Your task to perform on an android device: check out phone information Image 0: 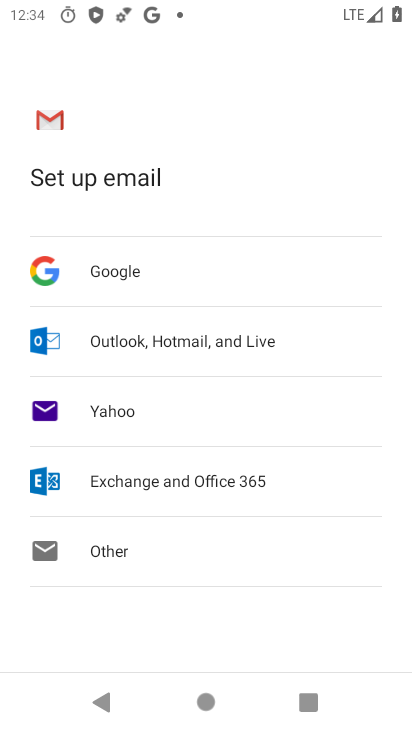
Step 0: click (106, 702)
Your task to perform on an android device: check out phone information Image 1: 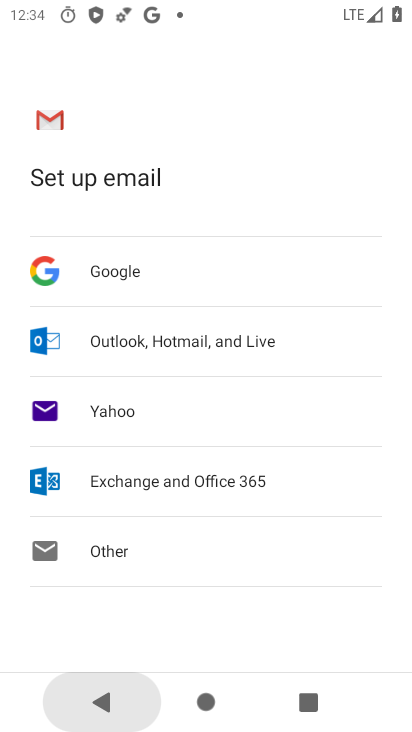
Step 1: click (106, 702)
Your task to perform on an android device: check out phone information Image 2: 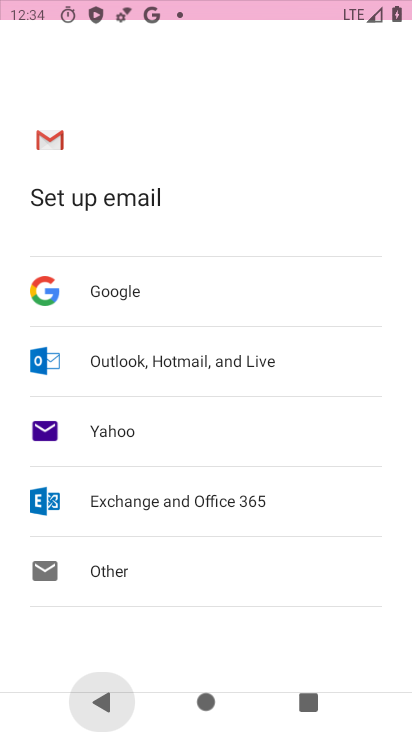
Step 2: click (106, 702)
Your task to perform on an android device: check out phone information Image 3: 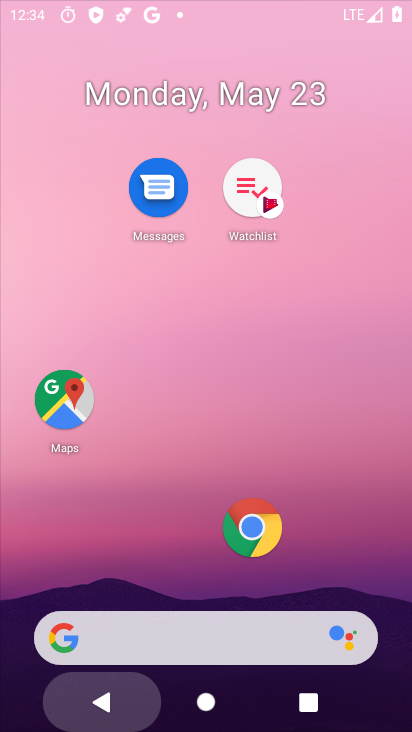
Step 3: click (104, 702)
Your task to perform on an android device: check out phone information Image 4: 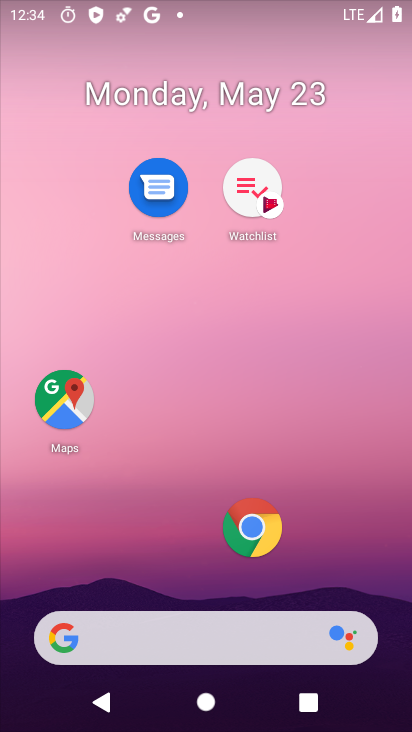
Step 4: press back button
Your task to perform on an android device: check out phone information Image 5: 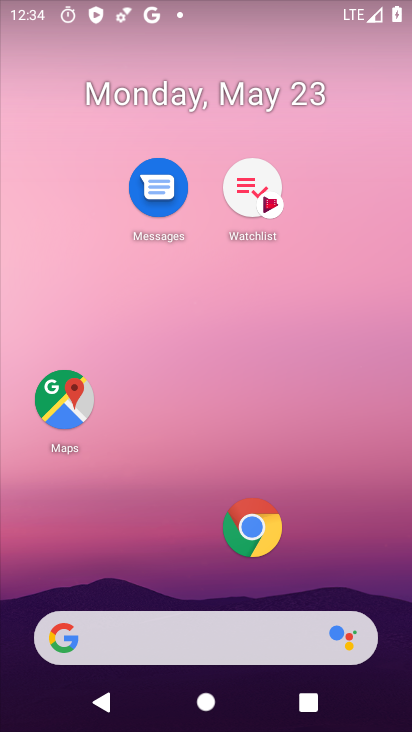
Step 5: press back button
Your task to perform on an android device: check out phone information Image 6: 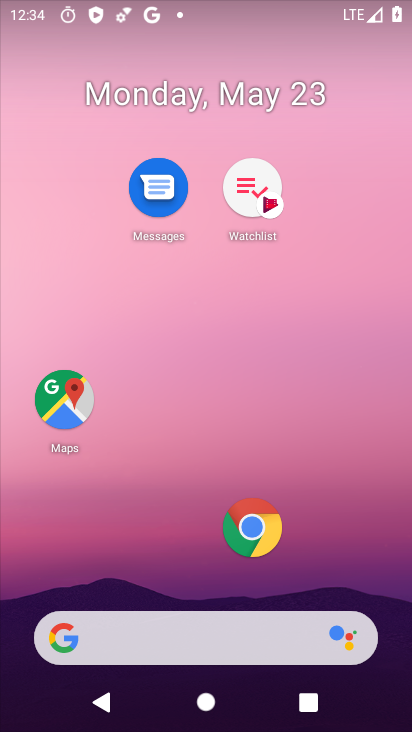
Step 6: drag from (309, 602) to (128, 97)
Your task to perform on an android device: check out phone information Image 7: 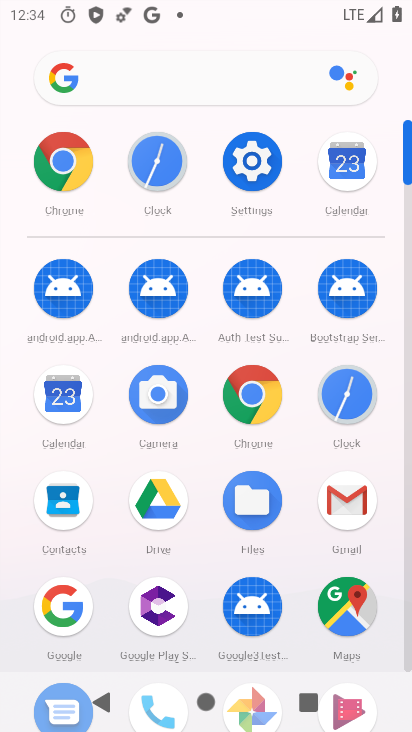
Step 7: drag from (230, 532) to (185, 145)
Your task to perform on an android device: check out phone information Image 8: 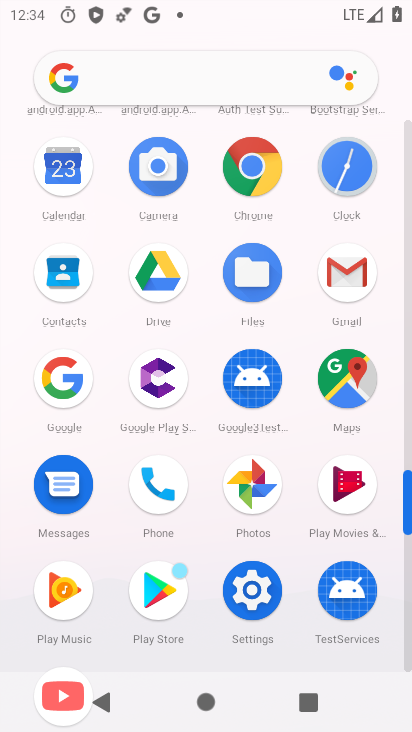
Step 8: drag from (230, 408) to (202, 82)
Your task to perform on an android device: check out phone information Image 9: 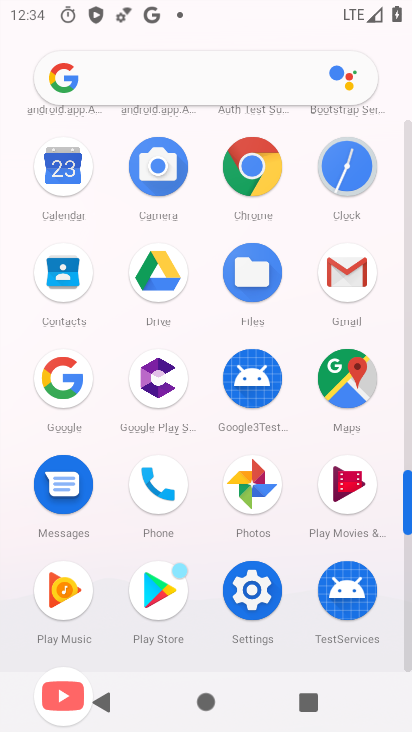
Step 9: click (250, 593)
Your task to perform on an android device: check out phone information Image 10: 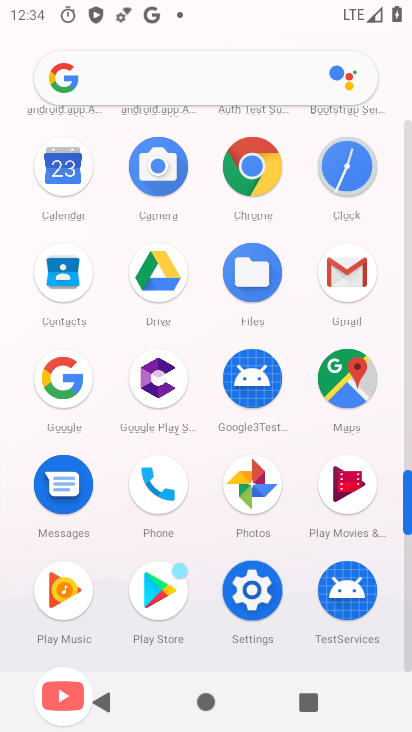
Step 10: click (250, 593)
Your task to perform on an android device: check out phone information Image 11: 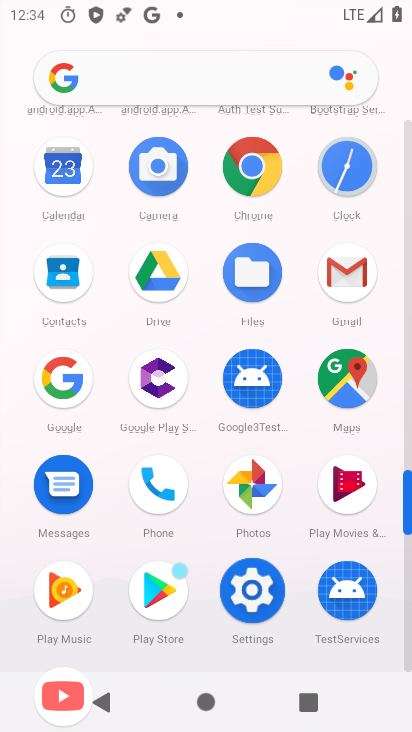
Step 11: click (250, 593)
Your task to perform on an android device: check out phone information Image 12: 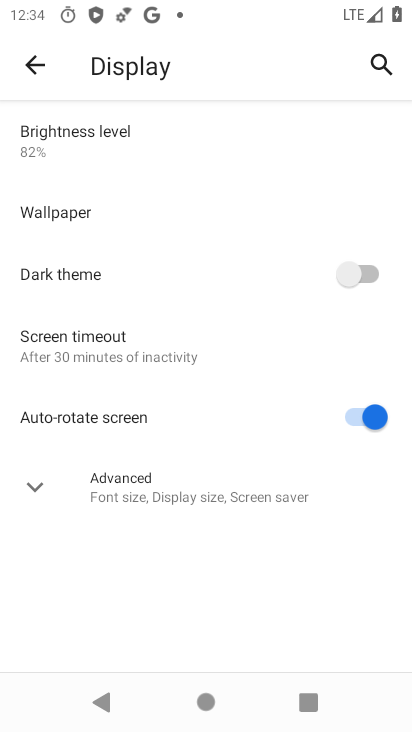
Step 12: drag from (156, 555) to (157, 183)
Your task to perform on an android device: check out phone information Image 13: 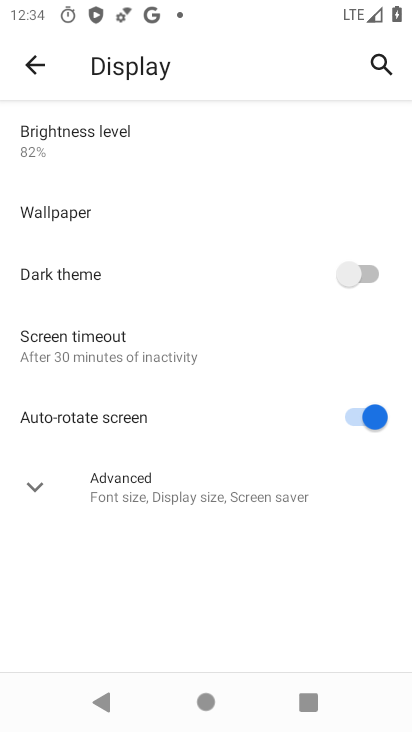
Step 13: click (38, 69)
Your task to perform on an android device: check out phone information Image 14: 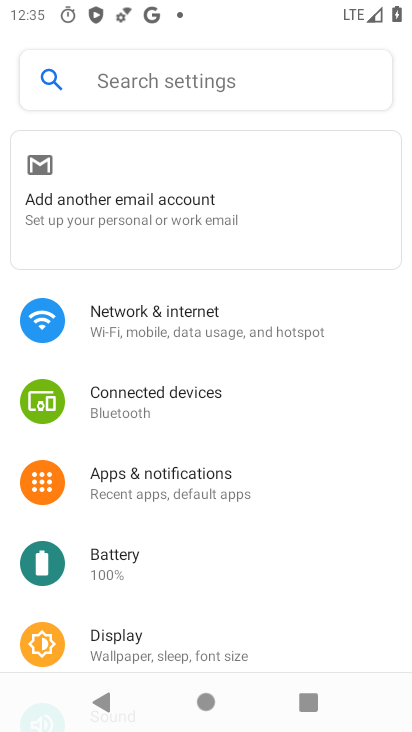
Step 14: drag from (213, 233) to (214, 184)
Your task to perform on an android device: check out phone information Image 15: 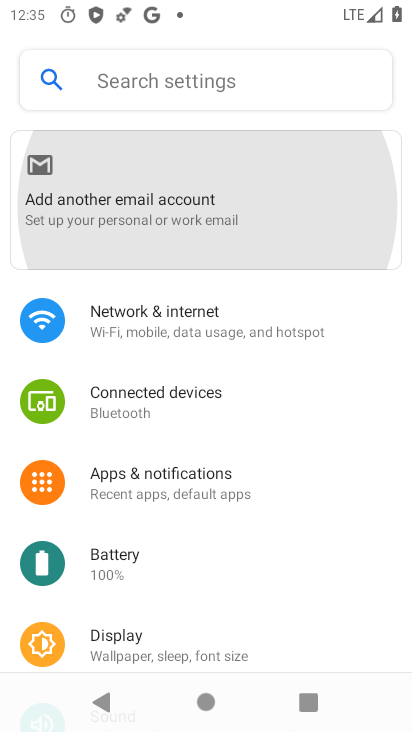
Step 15: drag from (314, 244) to (295, 199)
Your task to perform on an android device: check out phone information Image 16: 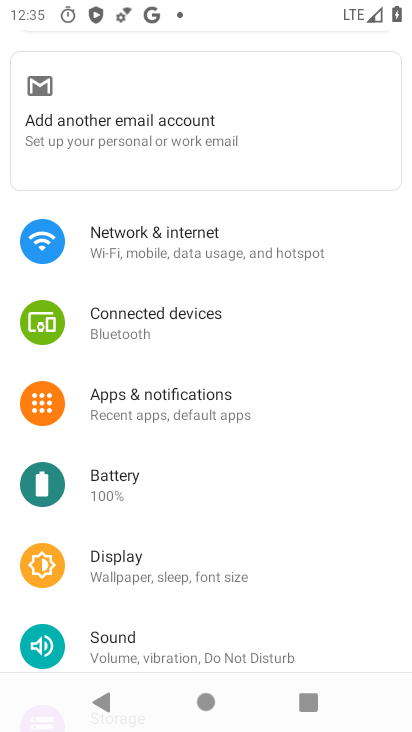
Step 16: click (156, 242)
Your task to perform on an android device: check out phone information Image 17: 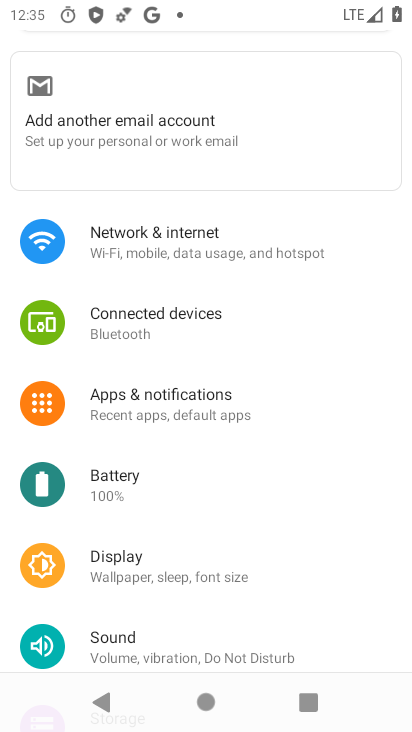
Step 17: drag from (164, 269) to (150, 175)
Your task to perform on an android device: check out phone information Image 18: 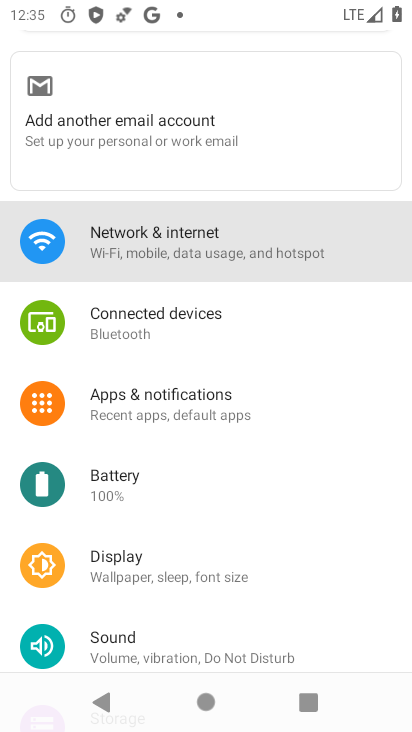
Step 18: drag from (119, 221) to (178, 350)
Your task to perform on an android device: check out phone information Image 19: 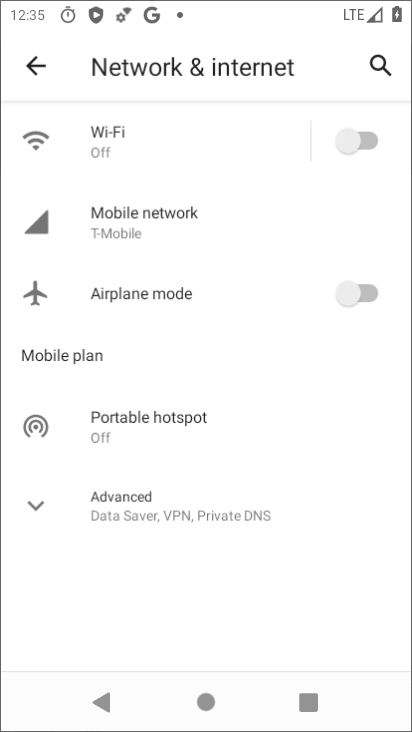
Step 19: drag from (173, 253) to (173, 148)
Your task to perform on an android device: check out phone information Image 20: 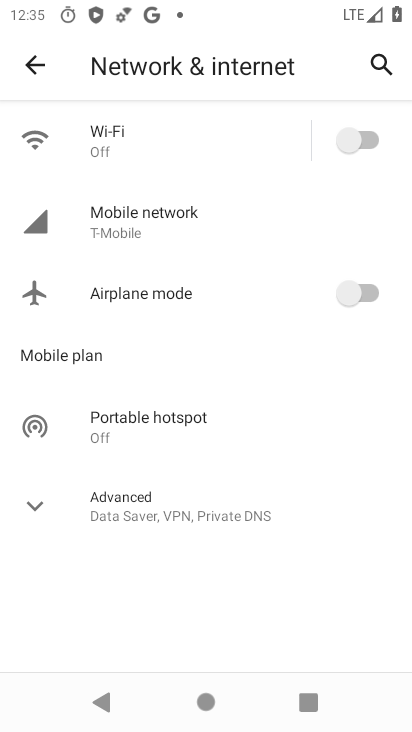
Step 20: drag from (237, 498) to (217, 194)
Your task to perform on an android device: check out phone information Image 21: 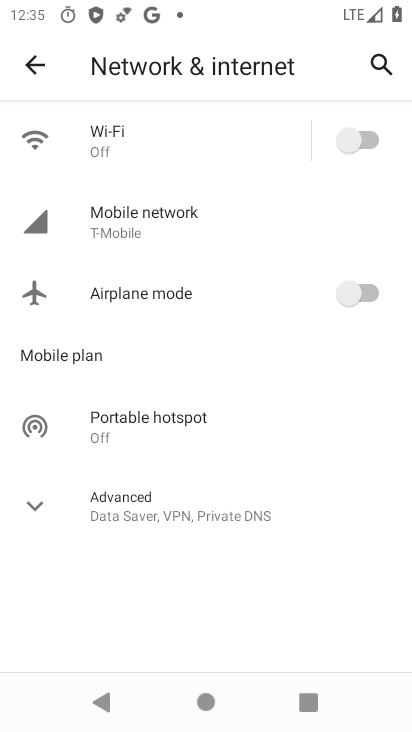
Step 21: click (20, 66)
Your task to perform on an android device: check out phone information Image 22: 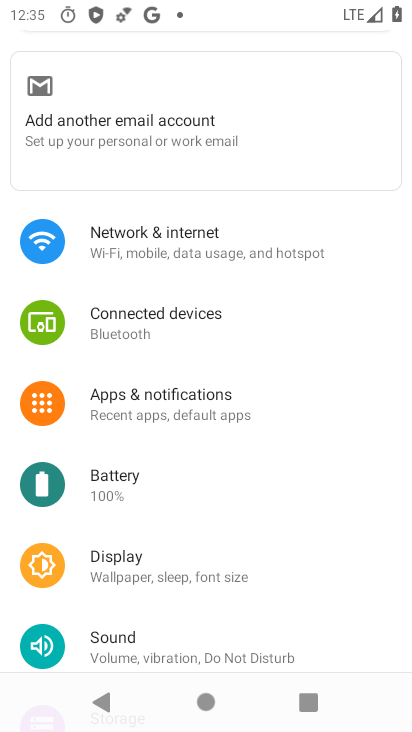
Step 22: drag from (160, 646) to (208, 72)
Your task to perform on an android device: check out phone information Image 23: 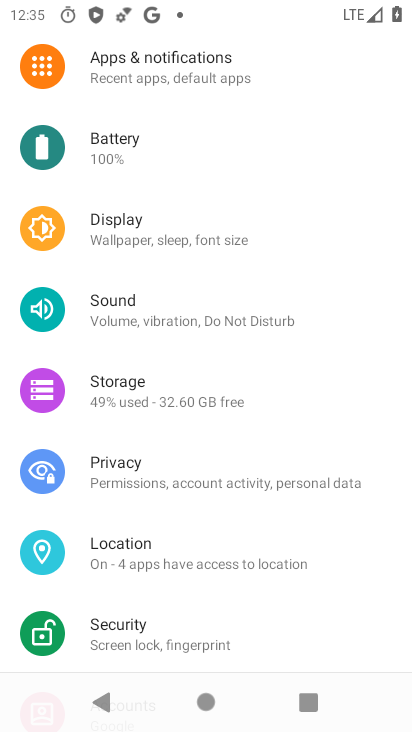
Step 23: drag from (155, 481) to (112, 63)
Your task to perform on an android device: check out phone information Image 24: 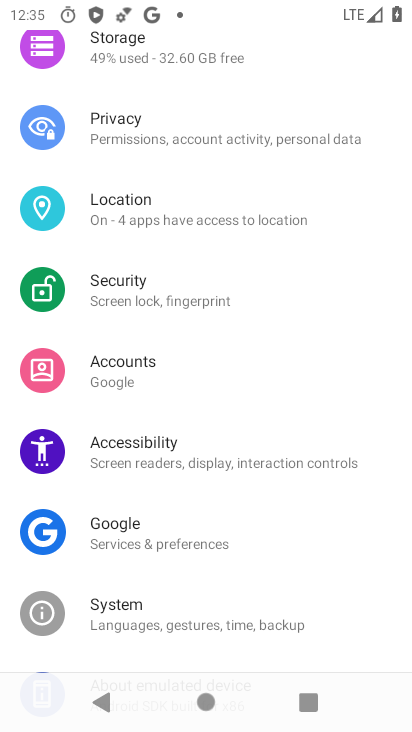
Step 24: drag from (198, 555) to (171, 135)
Your task to perform on an android device: check out phone information Image 25: 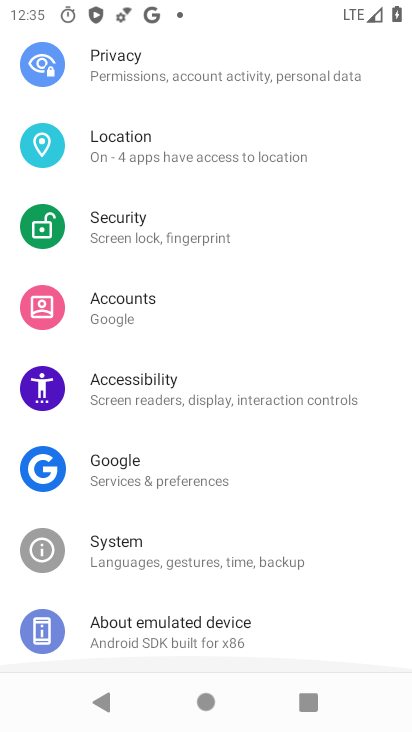
Step 25: drag from (211, 510) to (185, 155)
Your task to perform on an android device: check out phone information Image 26: 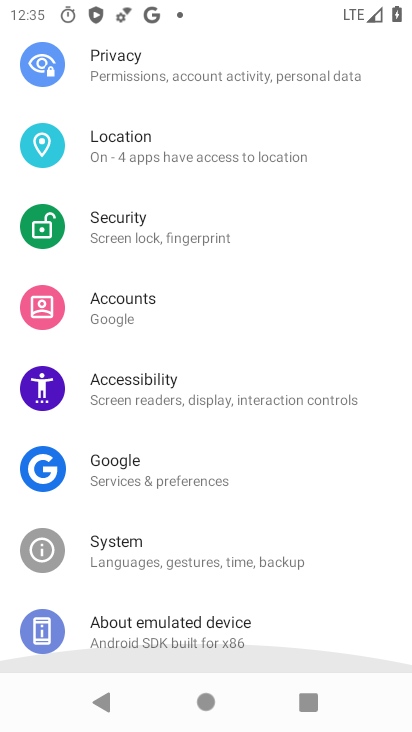
Step 26: drag from (176, 456) to (167, 207)
Your task to perform on an android device: check out phone information Image 27: 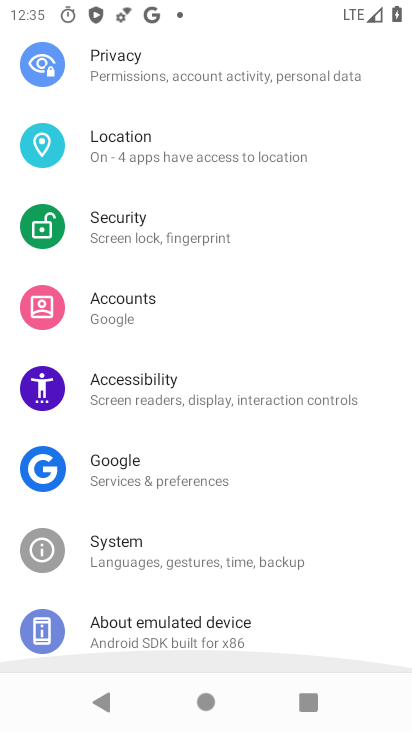
Step 27: drag from (219, 426) to (176, 131)
Your task to perform on an android device: check out phone information Image 28: 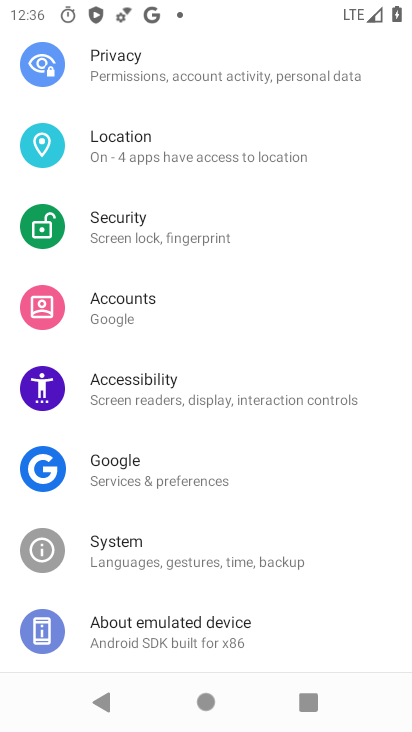
Step 28: click (171, 611)
Your task to perform on an android device: check out phone information Image 29: 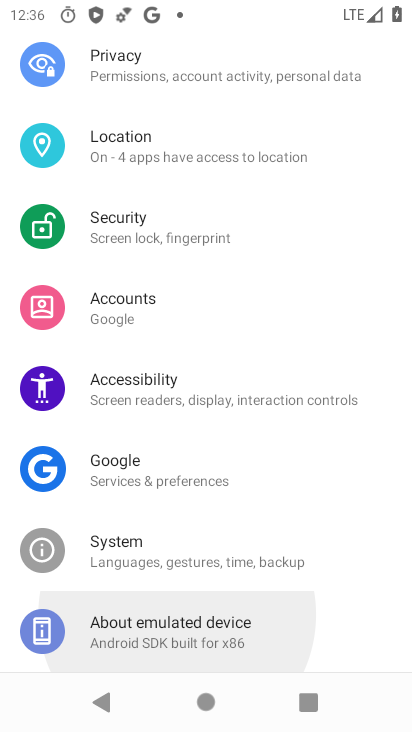
Step 29: click (174, 623)
Your task to perform on an android device: check out phone information Image 30: 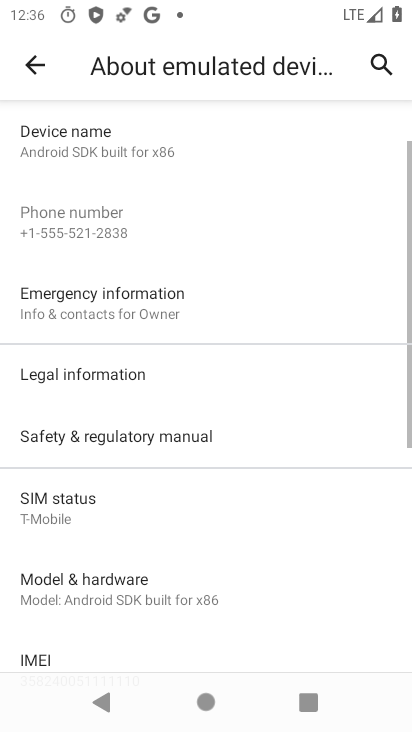
Step 30: task complete